Your task to perform on an android device: Check the news Image 0: 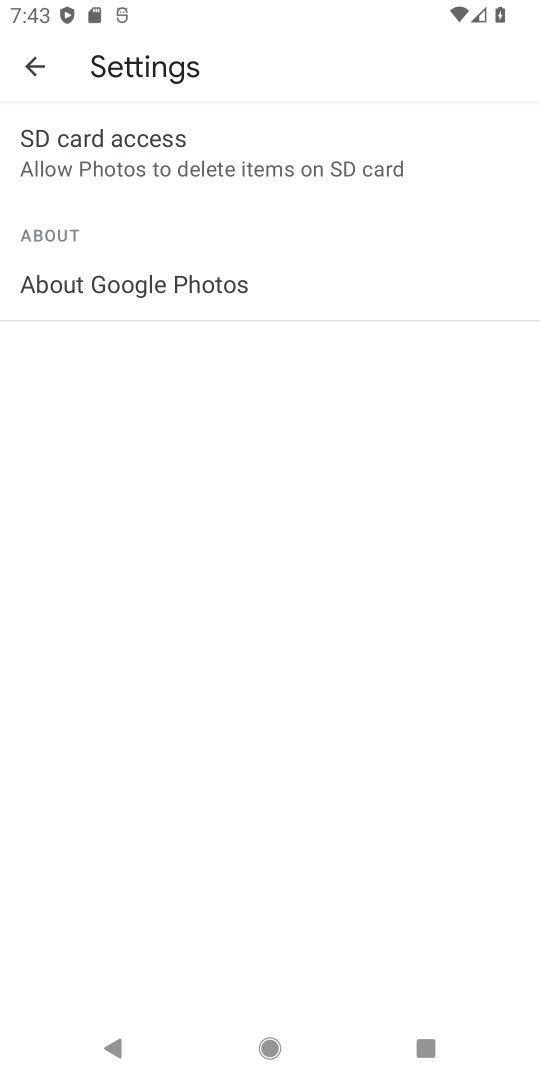
Step 0: press home button
Your task to perform on an android device: Check the news Image 1: 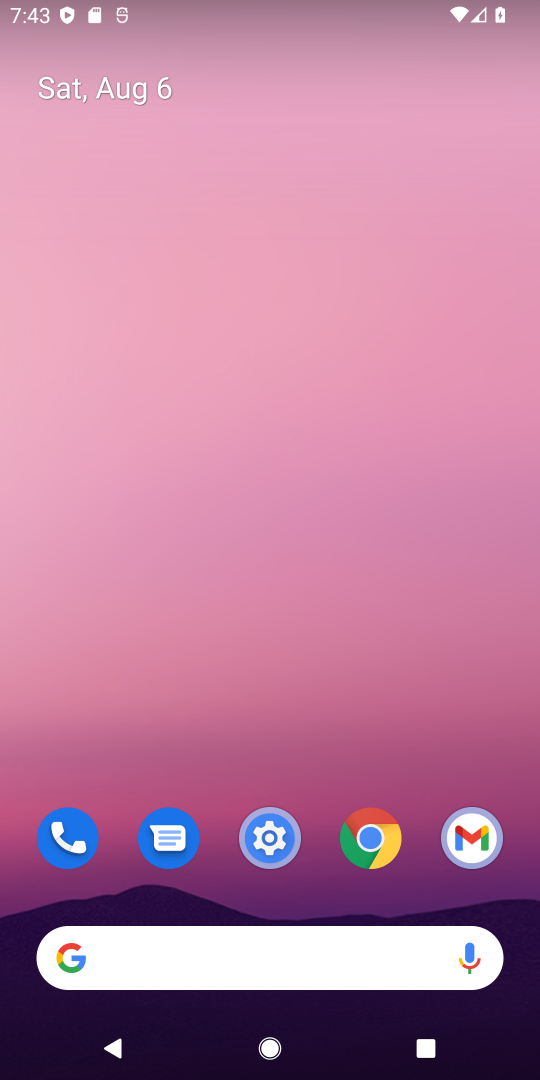
Step 1: click (236, 955)
Your task to perform on an android device: Check the news Image 2: 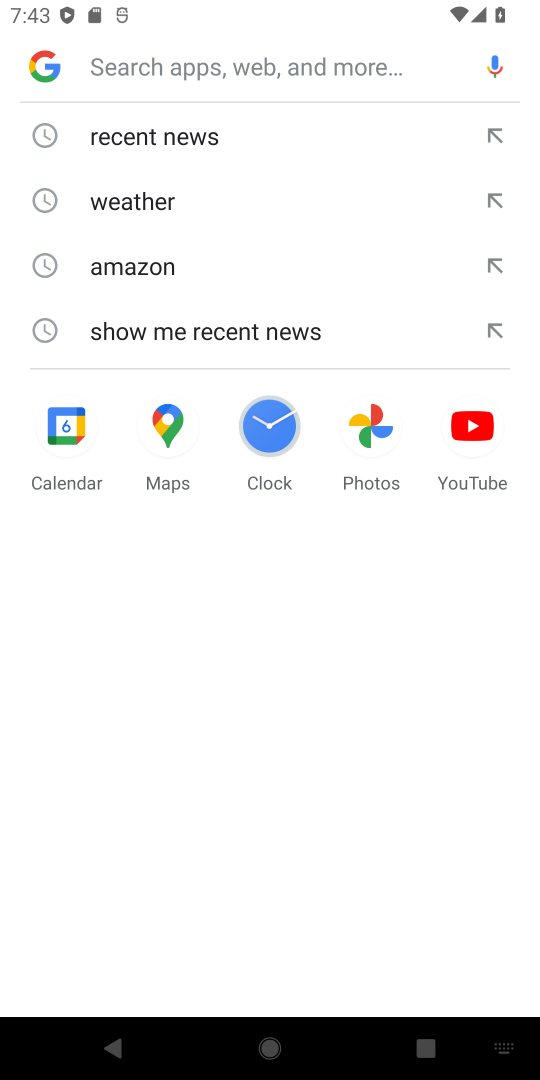
Step 2: type "news"
Your task to perform on an android device: Check the news Image 3: 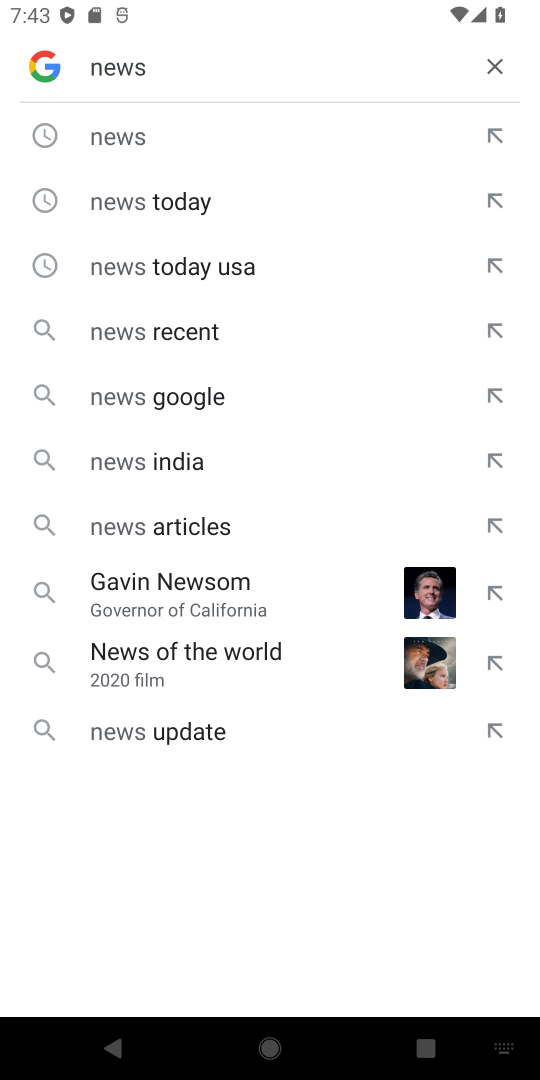
Step 3: click (148, 145)
Your task to perform on an android device: Check the news Image 4: 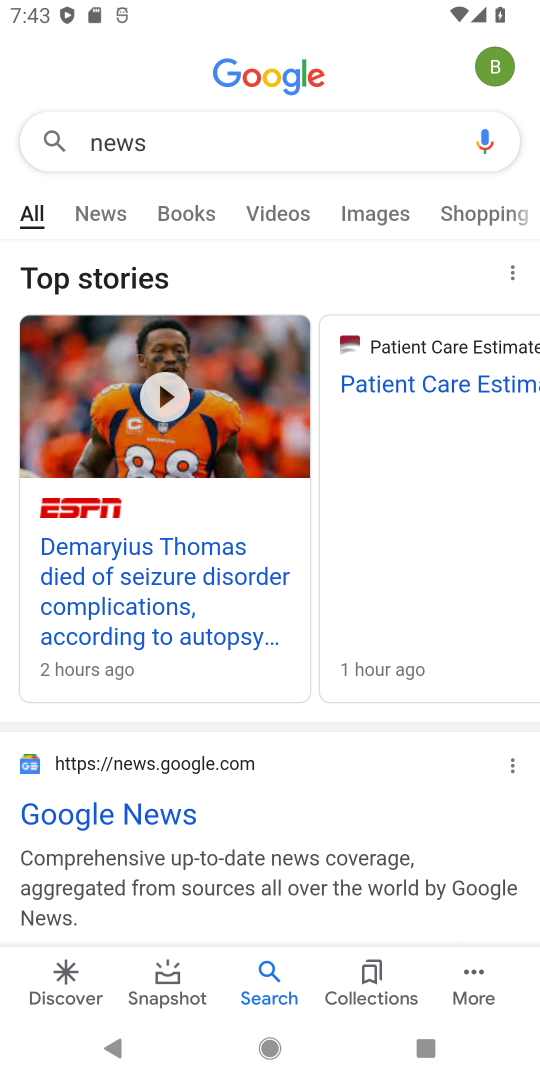
Step 4: task complete